Your task to perform on an android device: Open battery settings Image 0: 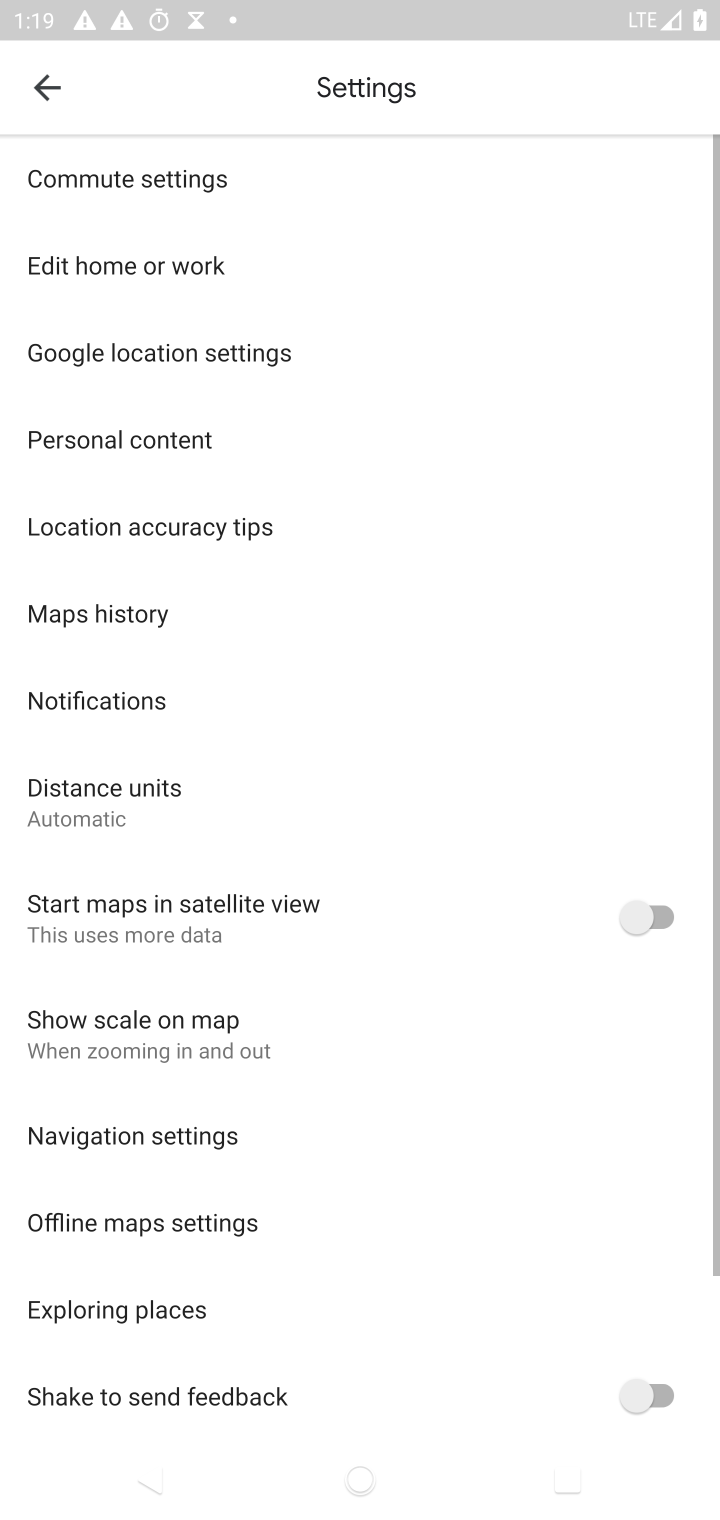
Step 0: press home button
Your task to perform on an android device: Open battery settings Image 1: 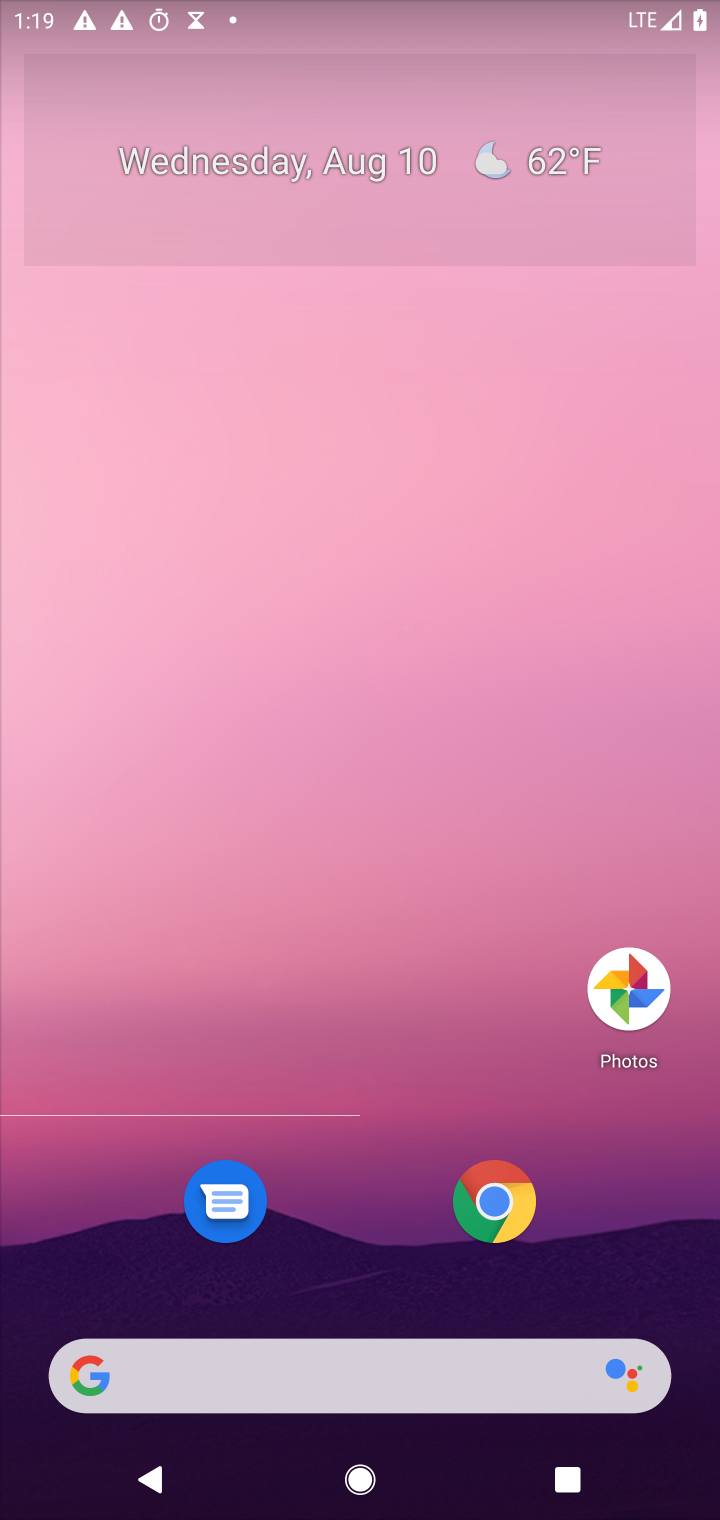
Step 1: drag from (351, 1217) to (494, 12)
Your task to perform on an android device: Open battery settings Image 2: 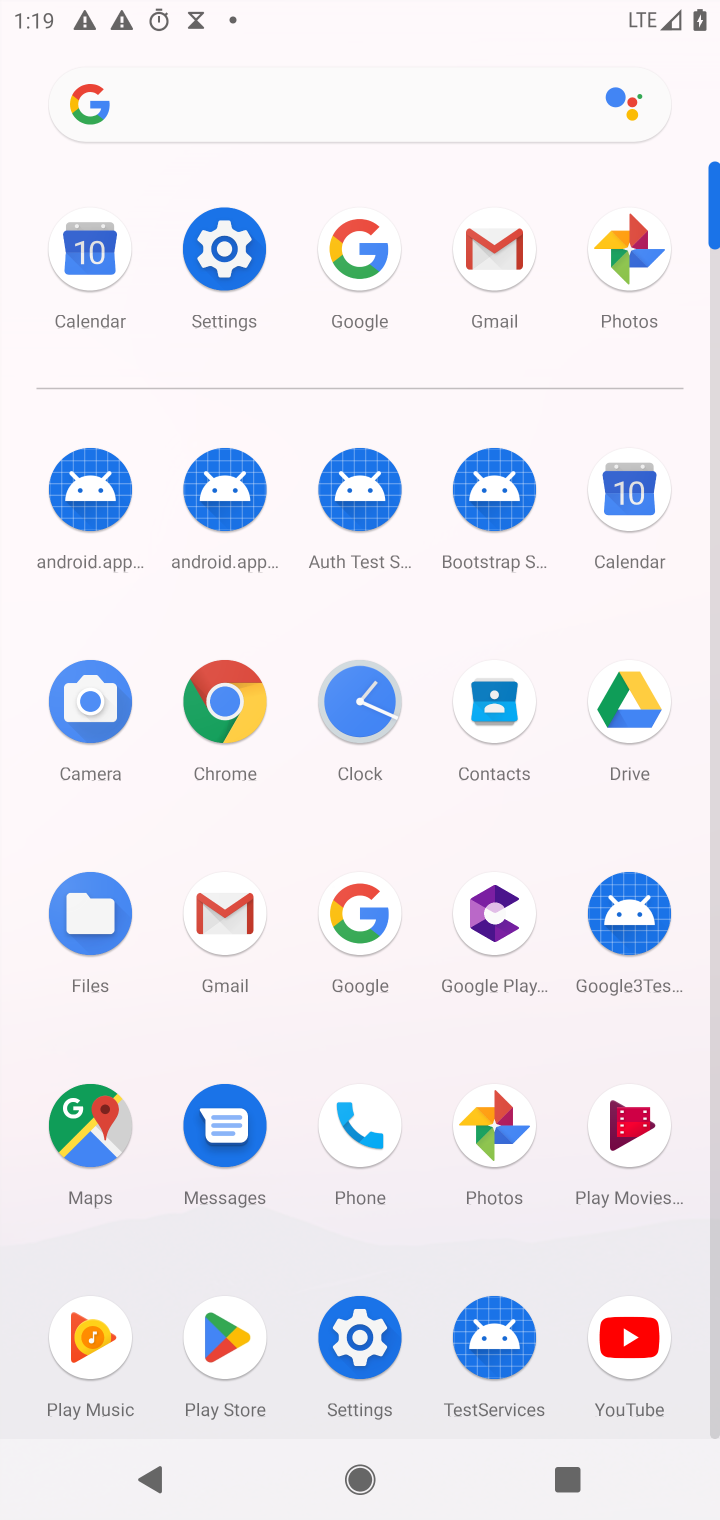
Step 2: click (235, 239)
Your task to perform on an android device: Open battery settings Image 3: 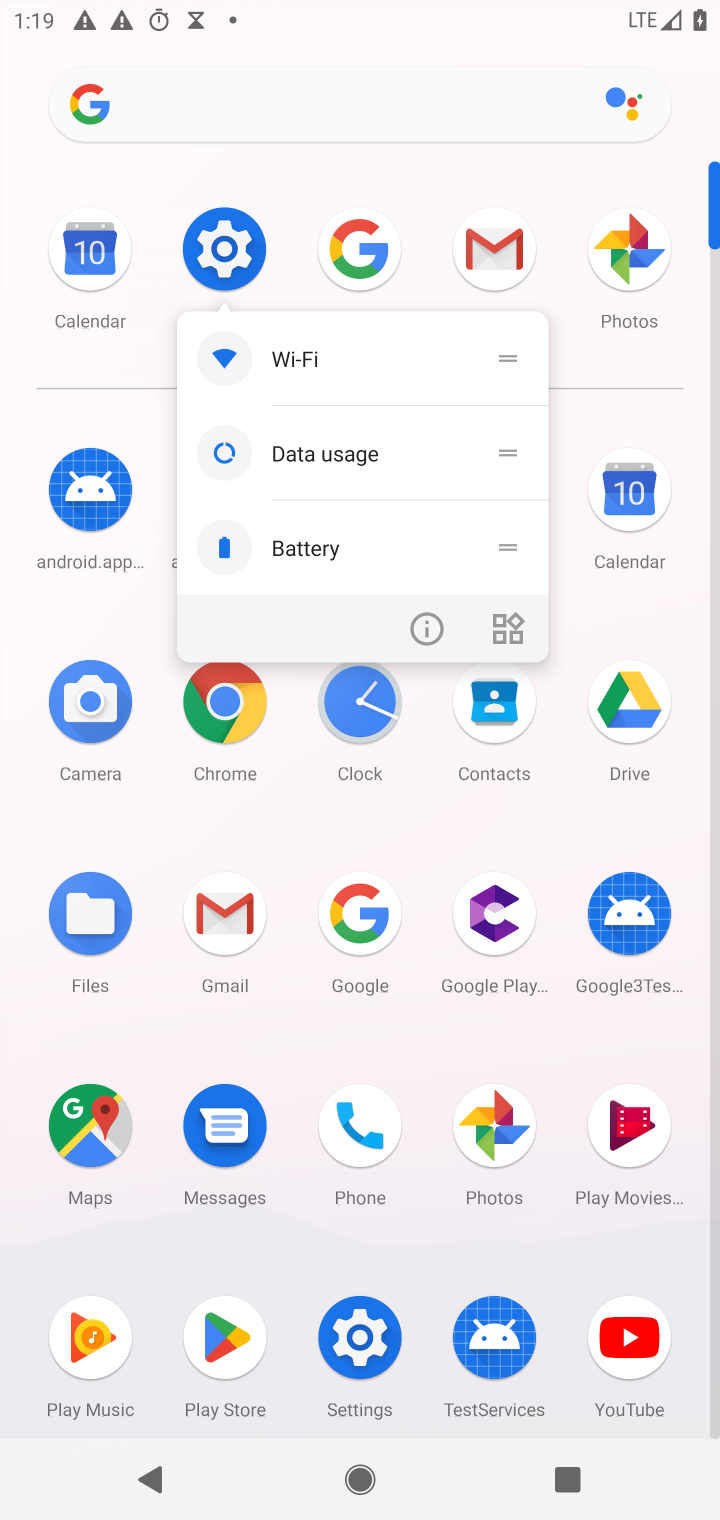
Step 3: click (246, 223)
Your task to perform on an android device: Open battery settings Image 4: 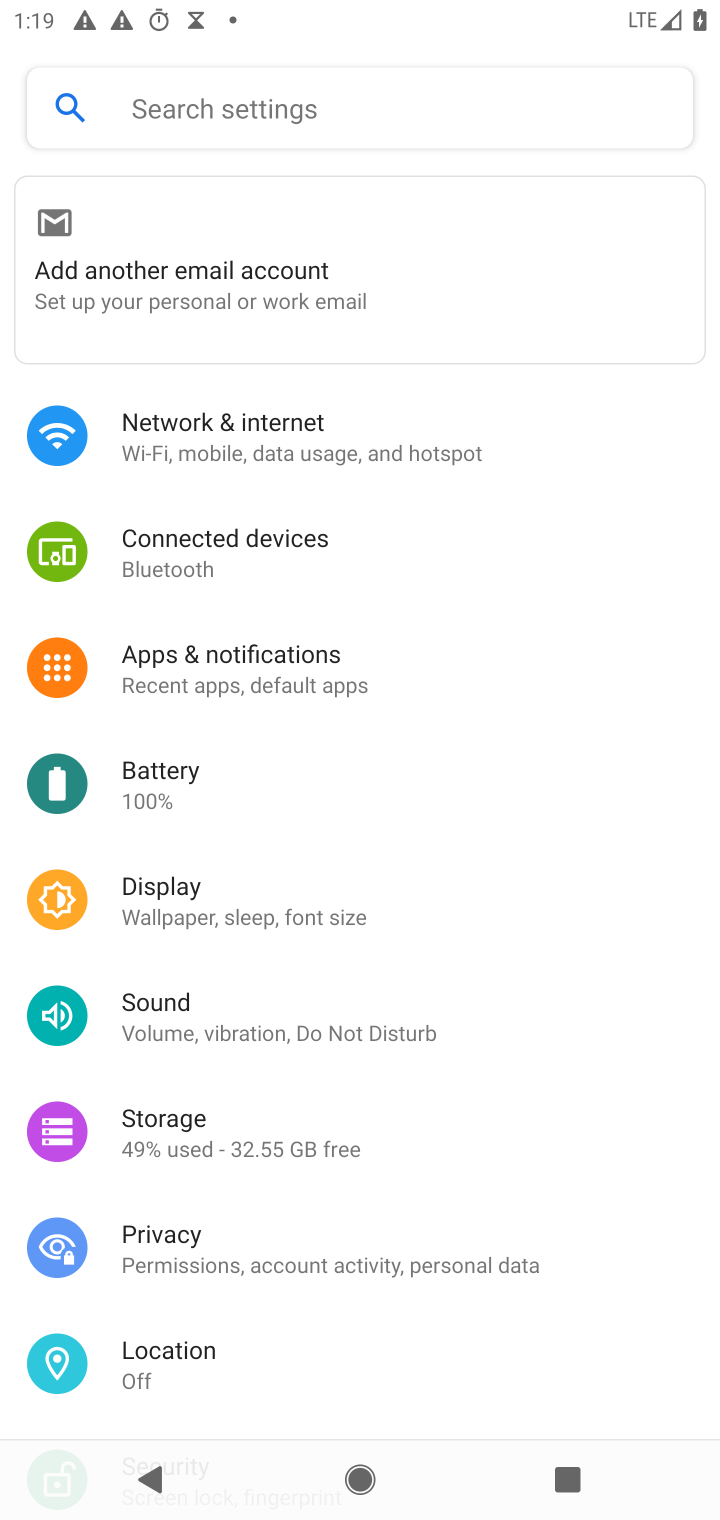
Step 4: click (148, 761)
Your task to perform on an android device: Open battery settings Image 5: 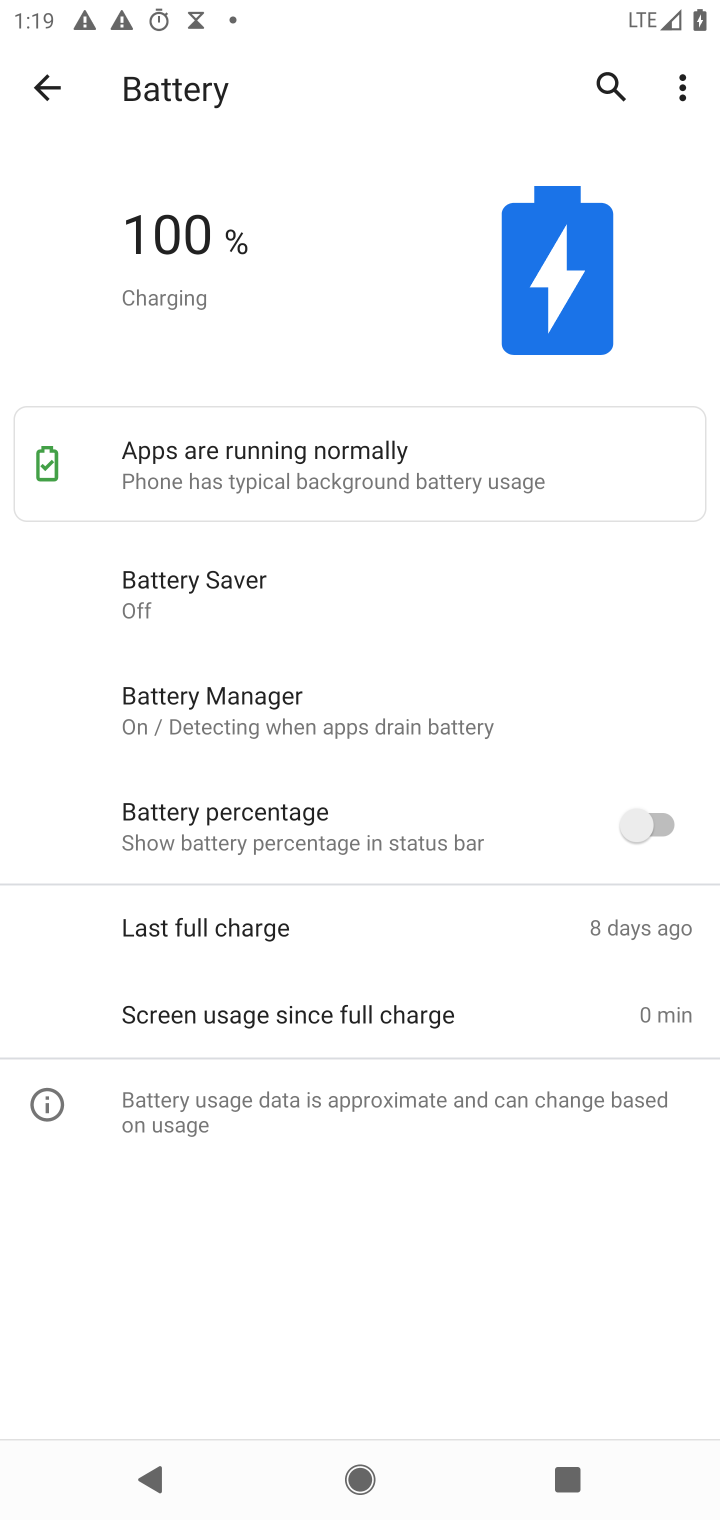
Step 5: task complete